Your task to perform on an android device: clear history in the chrome app Image 0: 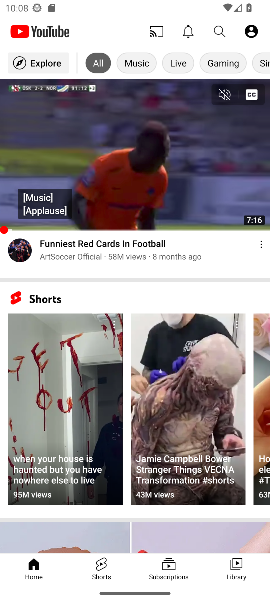
Step 0: press home button
Your task to perform on an android device: clear history in the chrome app Image 1: 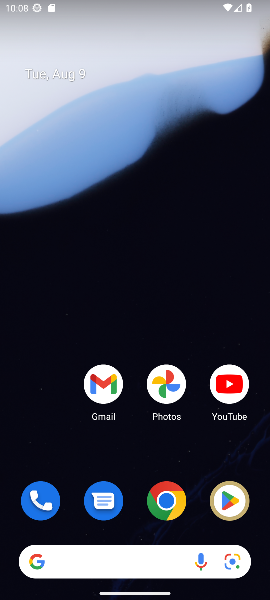
Step 1: click (168, 499)
Your task to perform on an android device: clear history in the chrome app Image 2: 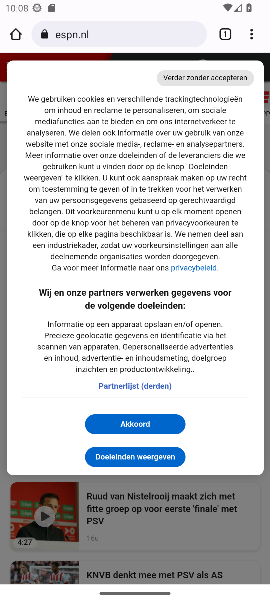
Step 2: click (252, 36)
Your task to perform on an android device: clear history in the chrome app Image 3: 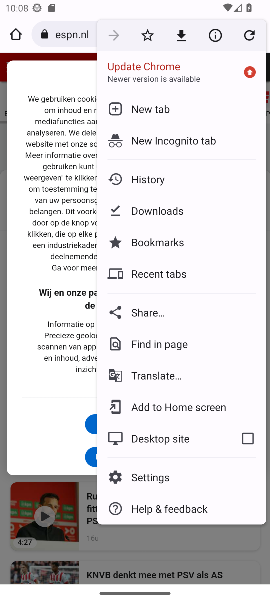
Step 3: click (152, 176)
Your task to perform on an android device: clear history in the chrome app Image 4: 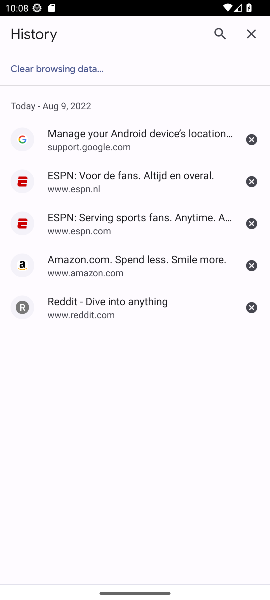
Step 4: click (67, 66)
Your task to perform on an android device: clear history in the chrome app Image 5: 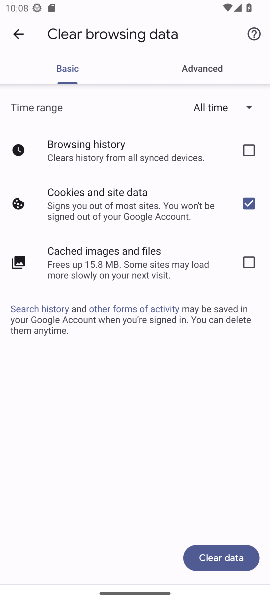
Step 5: click (250, 145)
Your task to perform on an android device: clear history in the chrome app Image 6: 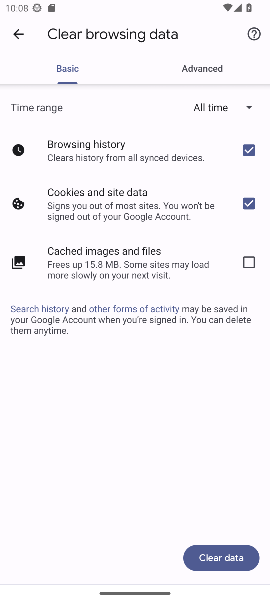
Step 6: click (249, 263)
Your task to perform on an android device: clear history in the chrome app Image 7: 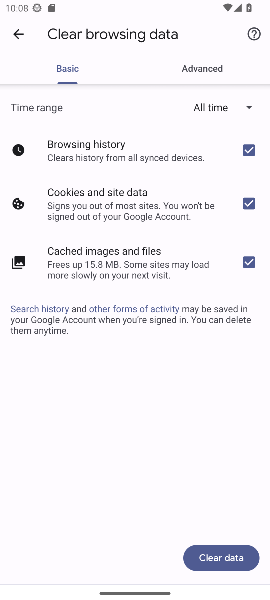
Step 7: click (221, 557)
Your task to perform on an android device: clear history in the chrome app Image 8: 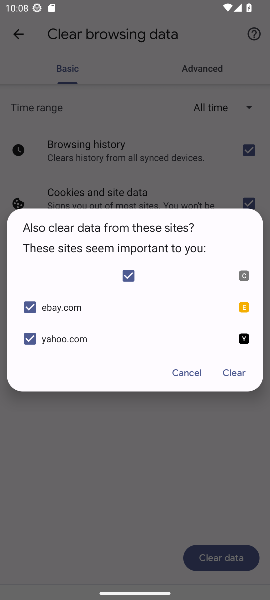
Step 8: click (237, 370)
Your task to perform on an android device: clear history in the chrome app Image 9: 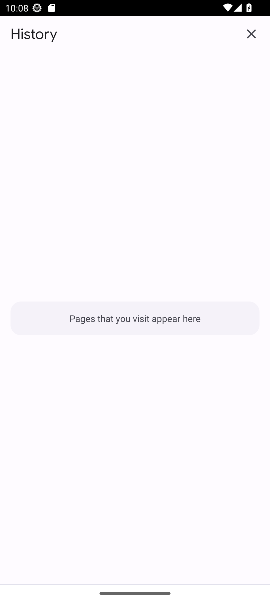
Step 9: task complete